Your task to perform on an android device: open chrome privacy settings Image 0: 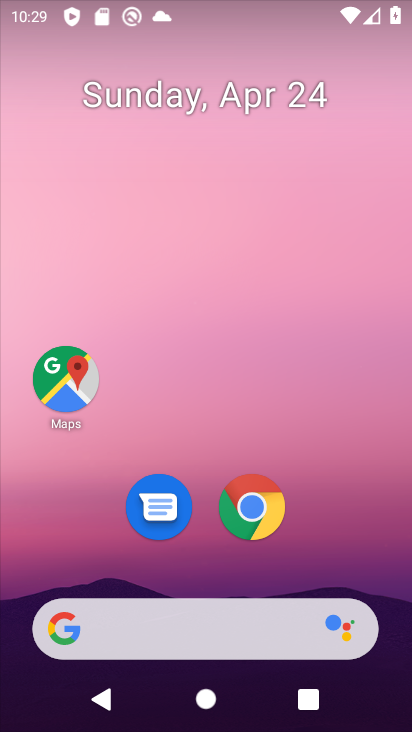
Step 0: drag from (377, 563) to (317, 131)
Your task to perform on an android device: open chrome privacy settings Image 1: 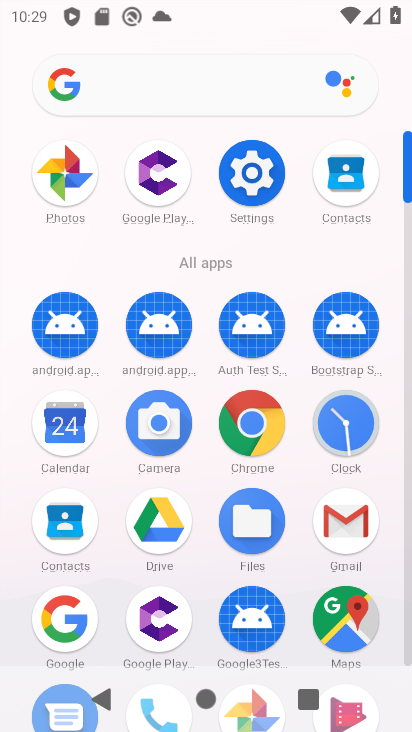
Step 1: click (256, 406)
Your task to perform on an android device: open chrome privacy settings Image 2: 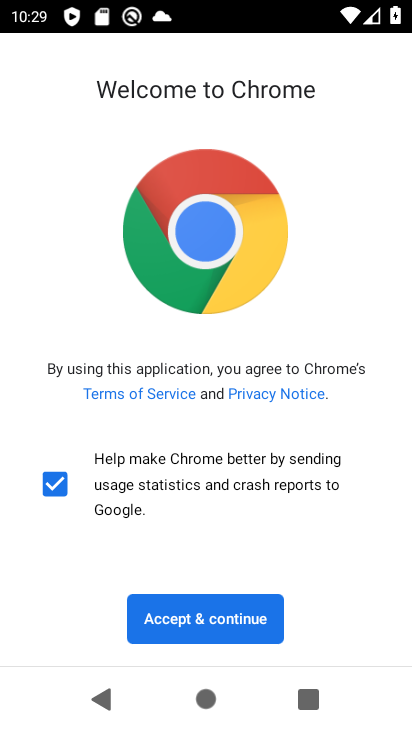
Step 2: click (222, 603)
Your task to perform on an android device: open chrome privacy settings Image 3: 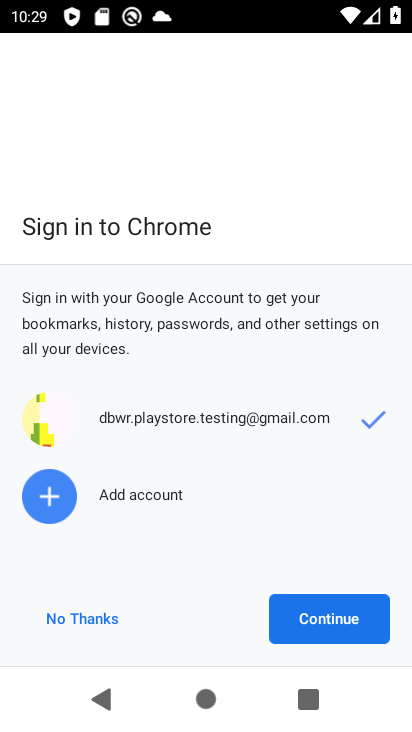
Step 3: click (336, 600)
Your task to perform on an android device: open chrome privacy settings Image 4: 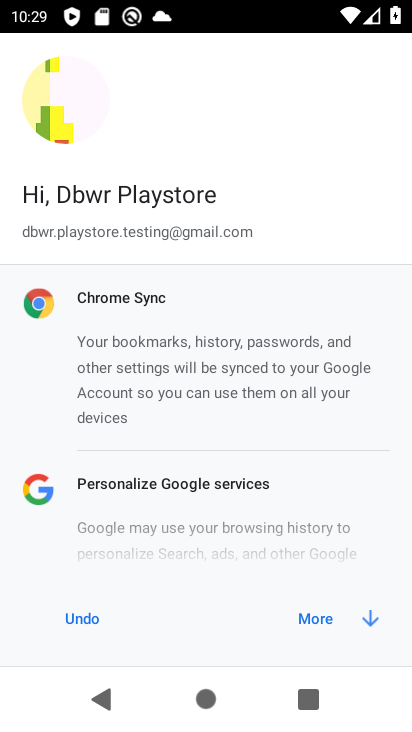
Step 4: click (337, 600)
Your task to perform on an android device: open chrome privacy settings Image 5: 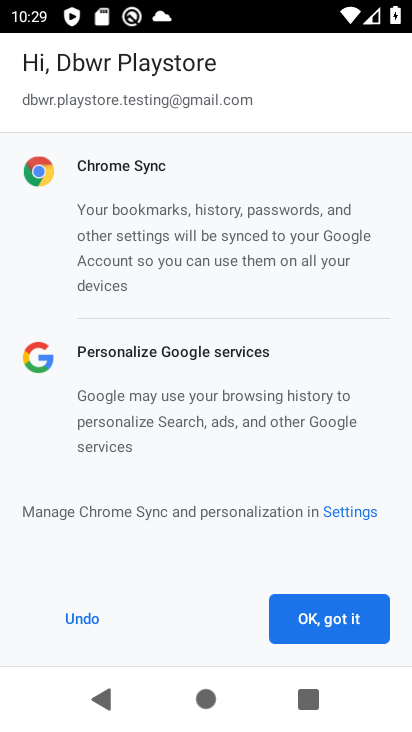
Step 5: click (337, 600)
Your task to perform on an android device: open chrome privacy settings Image 6: 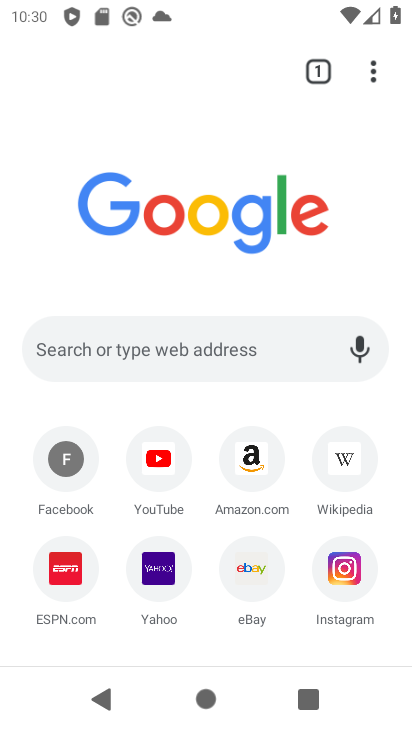
Step 6: click (372, 100)
Your task to perform on an android device: open chrome privacy settings Image 7: 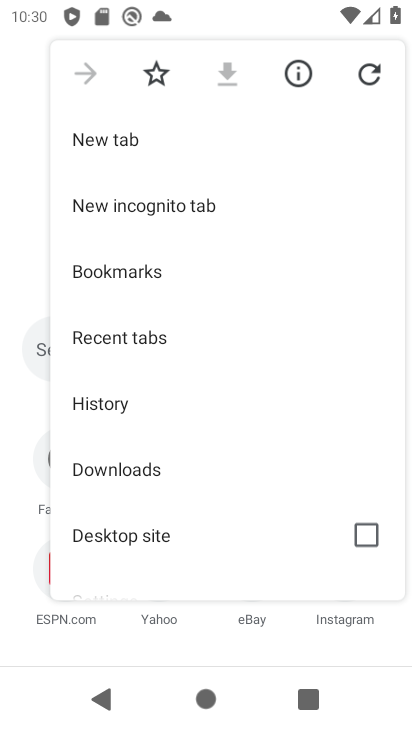
Step 7: drag from (155, 529) to (129, 217)
Your task to perform on an android device: open chrome privacy settings Image 8: 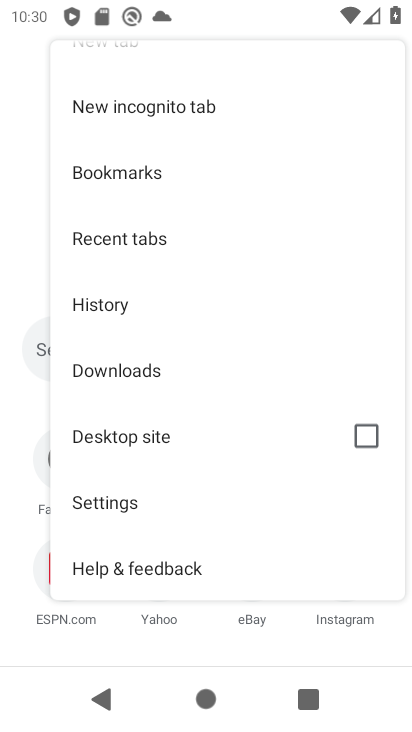
Step 8: click (159, 500)
Your task to perform on an android device: open chrome privacy settings Image 9: 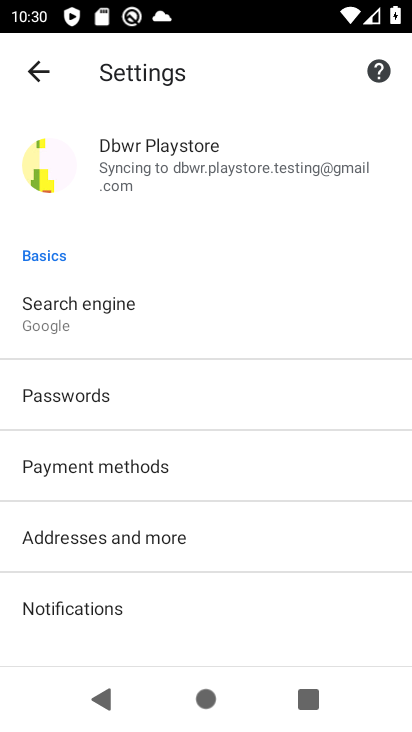
Step 9: drag from (189, 595) to (176, 158)
Your task to perform on an android device: open chrome privacy settings Image 10: 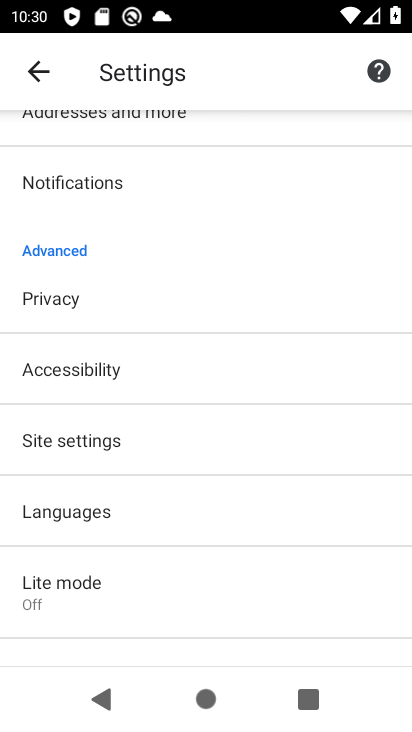
Step 10: click (74, 296)
Your task to perform on an android device: open chrome privacy settings Image 11: 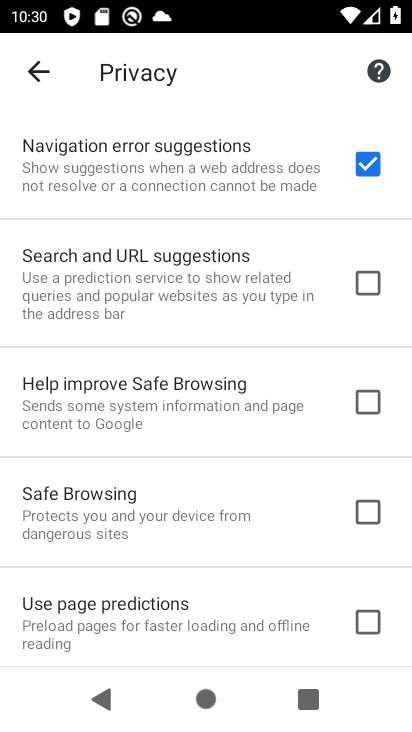
Step 11: task complete